Your task to perform on an android device: Is it going to rain tomorrow? Image 0: 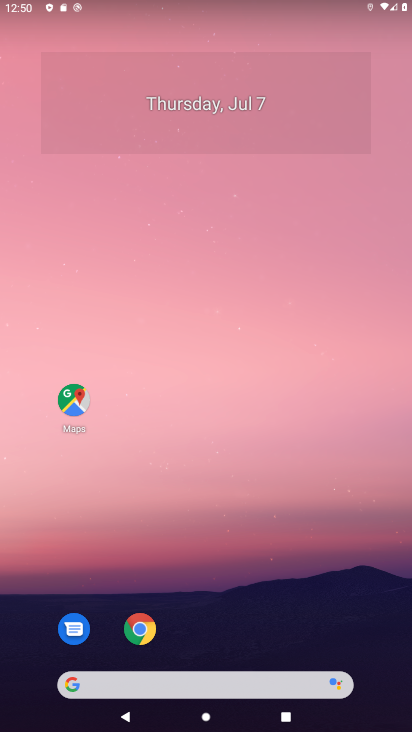
Step 0: drag from (209, 627) to (214, 37)
Your task to perform on an android device: Is it going to rain tomorrow? Image 1: 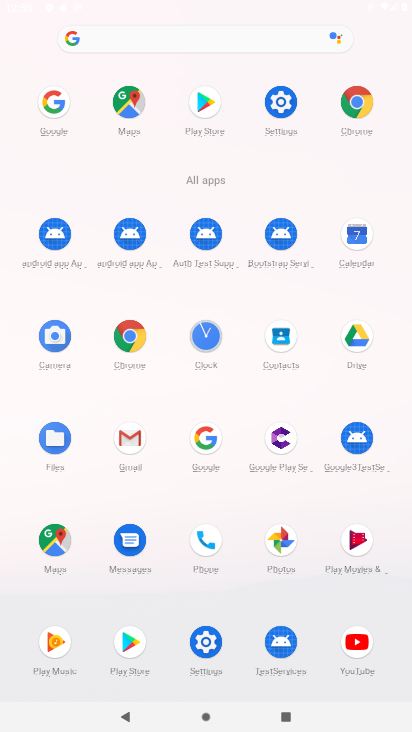
Step 1: click (51, 101)
Your task to perform on an android device: Is it going to rain tomorrow? Image 2: 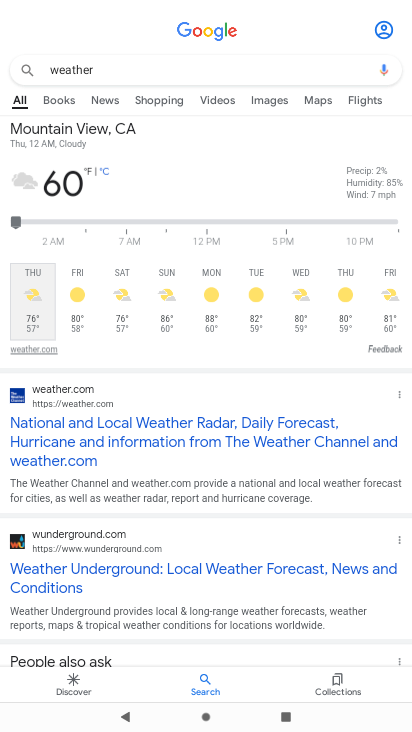
Step 2: click (275, 82)
Your task to perform on an android device: Is it going to rain tomorrow? Image 3: 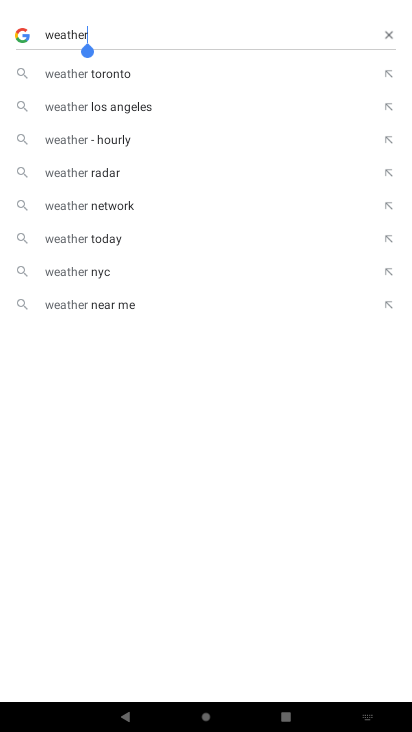
Step 3: click (381, 30)
Your task to perform on an android device: Is it going to rain tomorrow? Image 4: 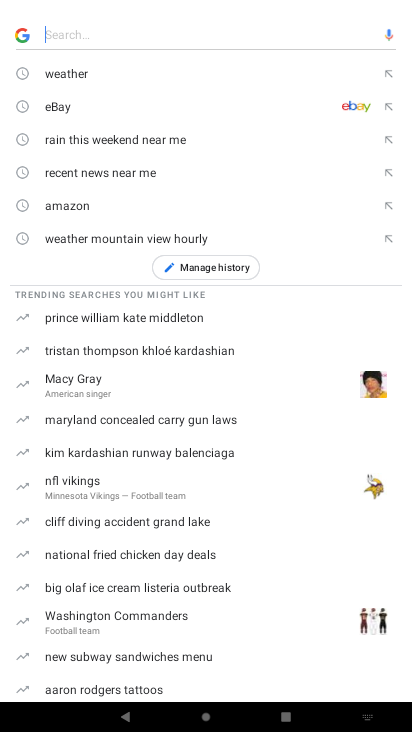
Step 4: type "Is it going to rain tomorrow?"
Your task to perform on an android device: Is it going to rain tomorrow? Image 5: 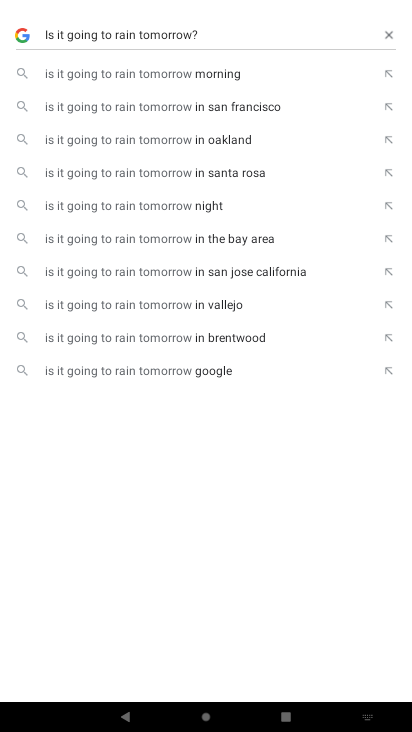
Step 5: task complete